Your task to perform on an android device: toggle javascript in the chrome app Image 0: 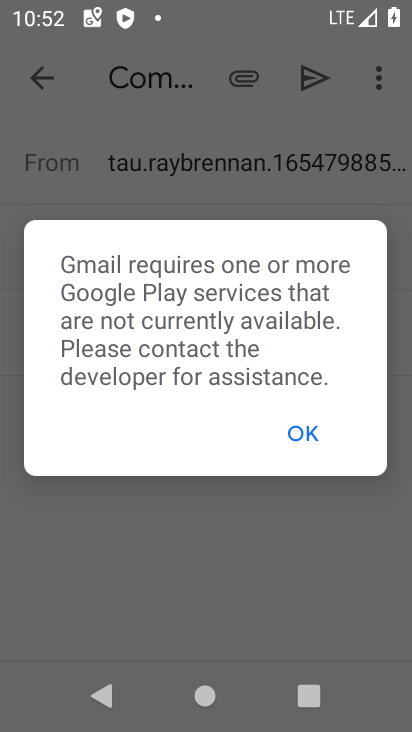
Step 0: click (296, 424)
Your task to perform on an android device: toggle javascript in the chrome app Image 1: 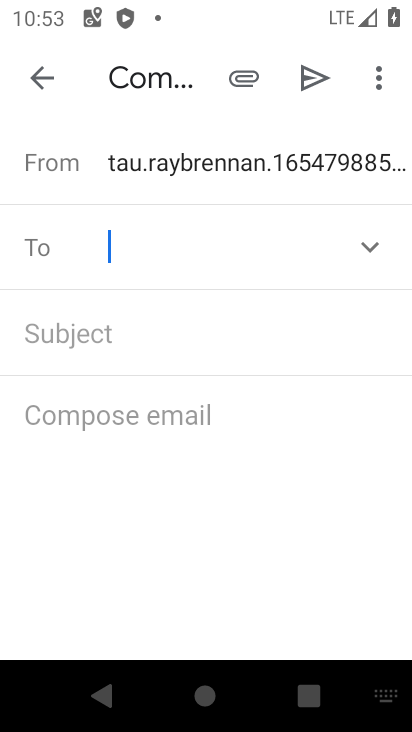
Step 1: press back button
Your task to perform on an android device: toggle javascript in the chrome app Image 2: 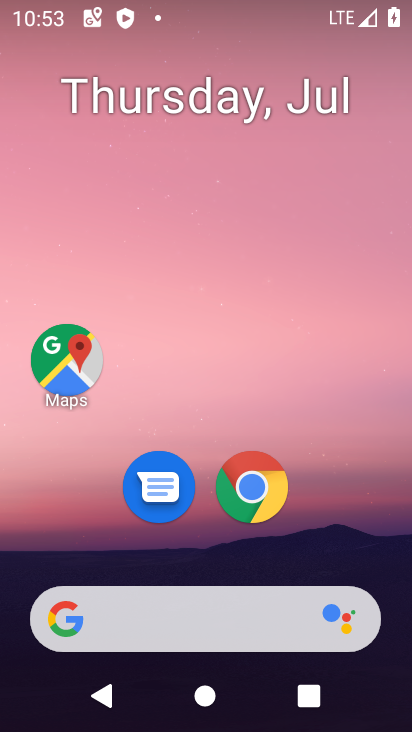
Step 2: click (253, 492)
Your task to perform on an android device: toggle javascript in the chrome app Image 3: 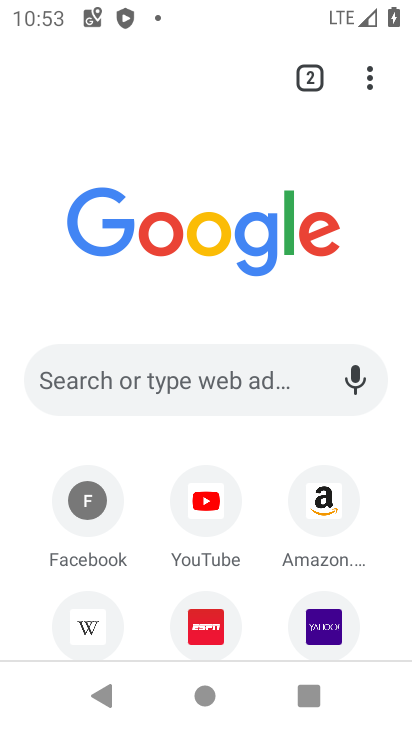
Step 3: drag from (367, 76) to (162, 548)
Your task to perform on an android device: toggle javascript in the chrome app Image 4: 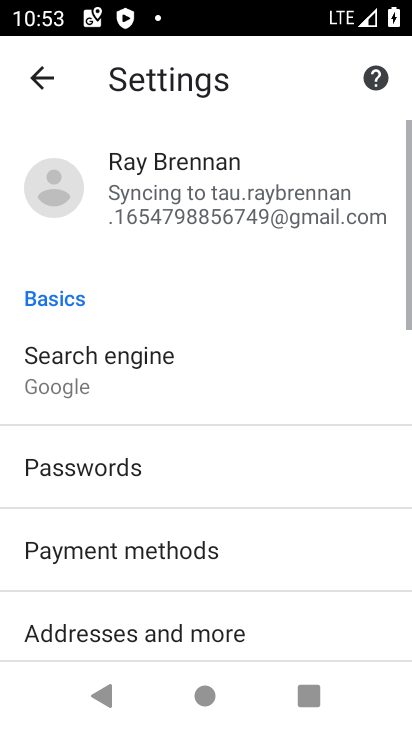
Step 4: drag from (152, 558) to (243, 89)
Your task to perform on an android device: toggle javascript in the chrome app Image 5: 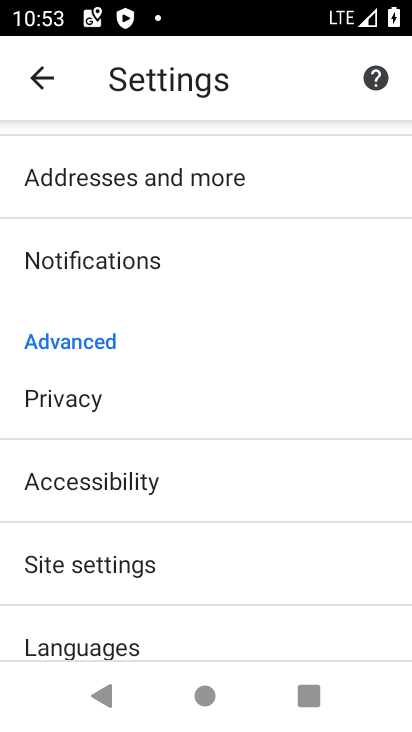
Step 5: click (110, 553)
Your task to perform on an android device: toggle javascript in the chrome app Image 6: 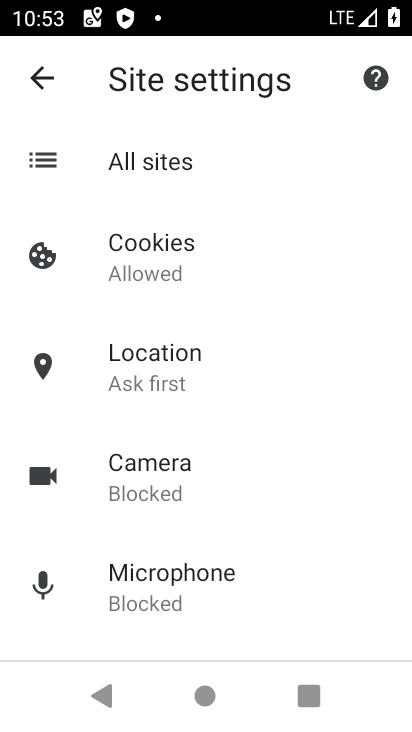
Step 6: drag from (157, 630) to (274, 145)
Your task to perform on an android device: toggle javascript in the chrome app Image 7: 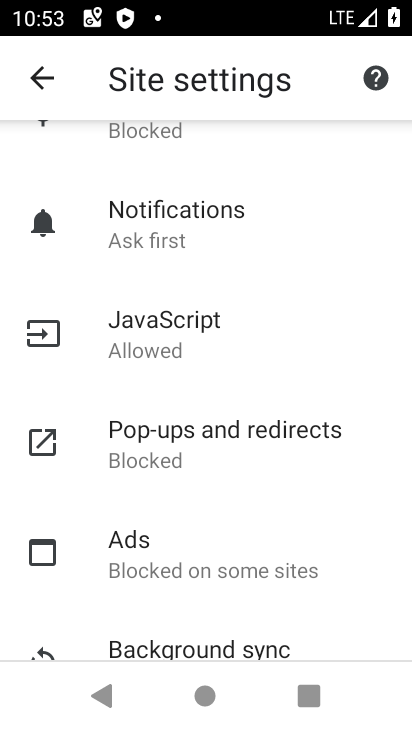
Step 7: click (181, 342)
Your task to perform on an android device: toggle javascript in the chrome app Image 8: 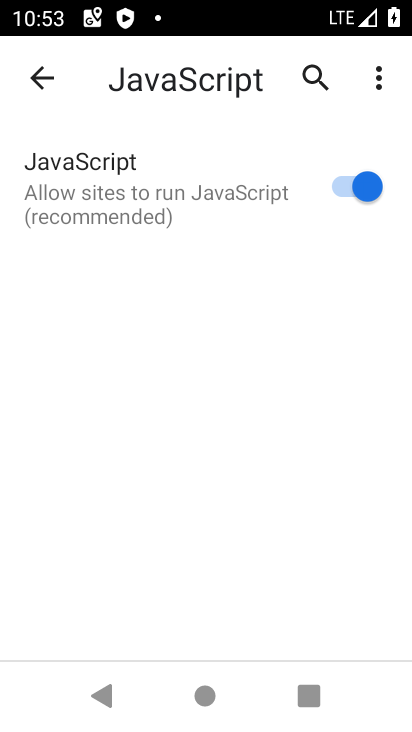
Step 8: click (347, 185)
Your task to perform on an android device: toggle javascript in the chrome app Image 9: 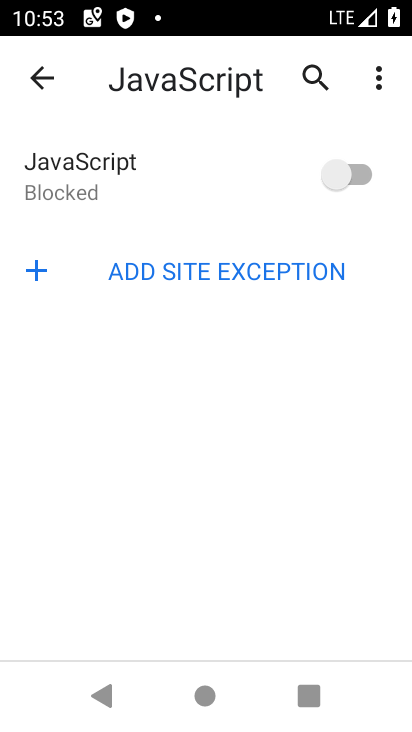
Step 9: task complete